Your task to perform on an android device: move an email to a new category in the gmail app Image 0: 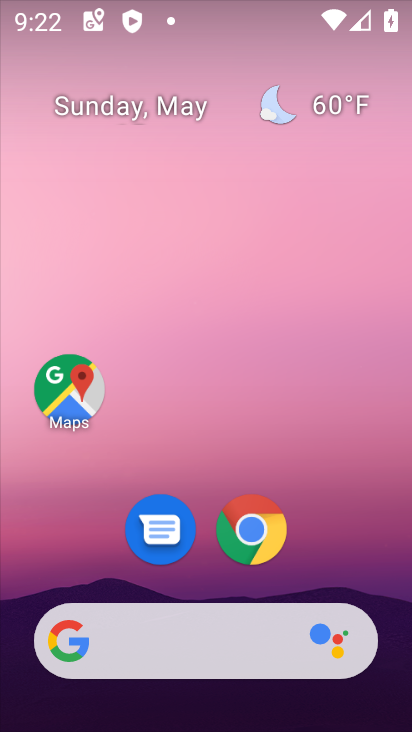
Step 0: drag from (370, 548) to (368, 167)
Your task to perform on an android device: move an email to a new category in the gmail app Image 1: 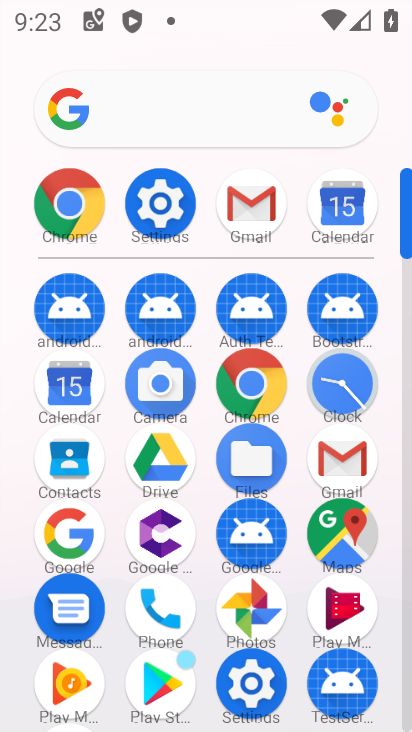
Step 1: click (331, 465)
Your task to perform on an android device: move an email to a new category in the gmail app Image 2: 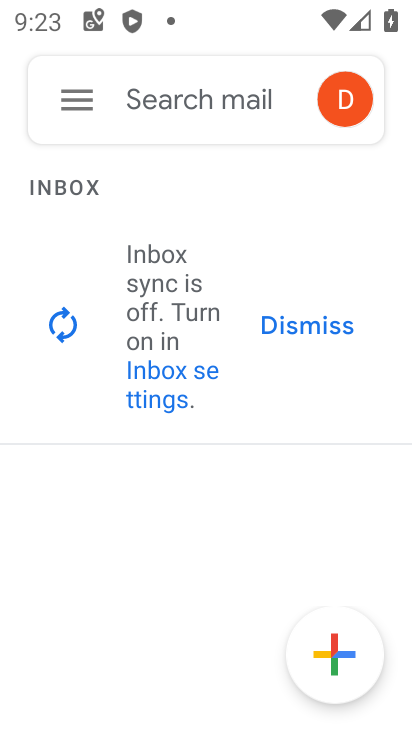
Step 2: click (85, 101)
Your task to perform on an android device: move an email to a new category in the gmail app Image 3: 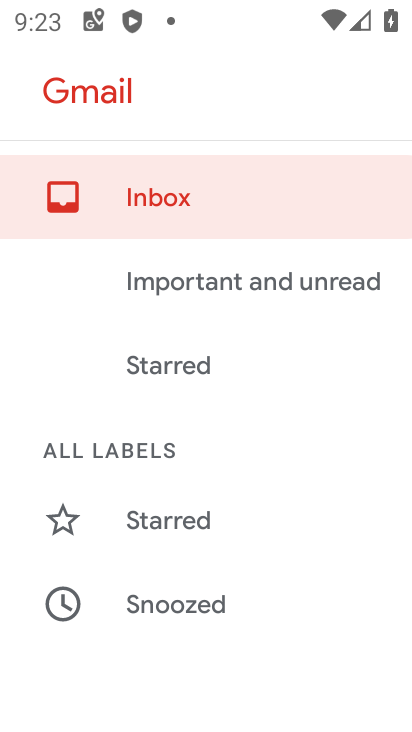
Step 3: drag from (306, 642) to (299, 404)
Your task to perform on an android device: move an email to a new category in the gmail app Image 4: 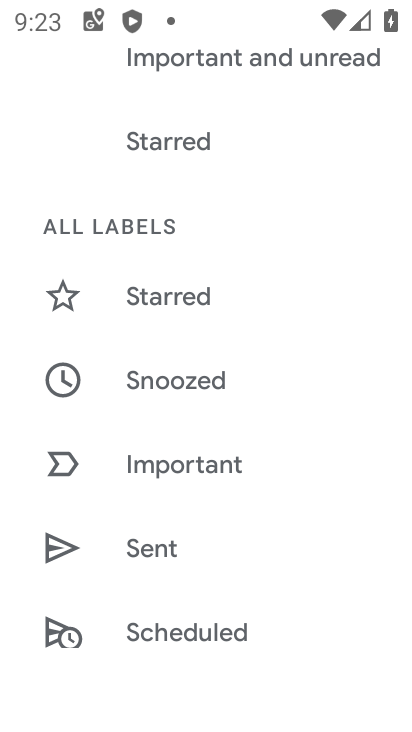
Step 4: drag from (317, 655) to (328, 428)
Your task to perform on an android device: move an email to a new category in the gmail app Image 5: 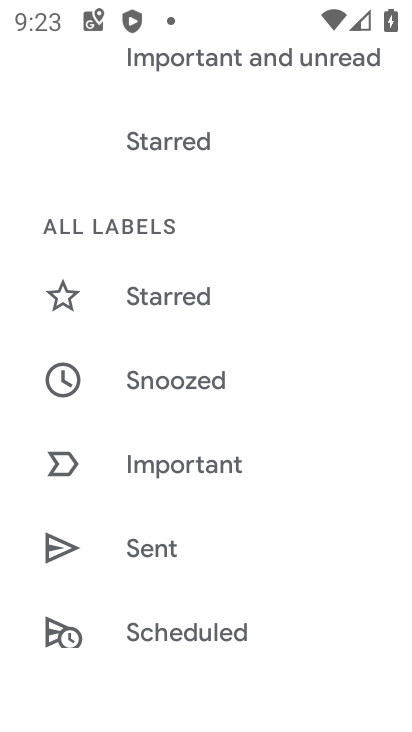
Step 5: drag from (327, 649) to (330, 471)
Your task to perform on an android device: move an email to a new category in the gmail app Image 6: 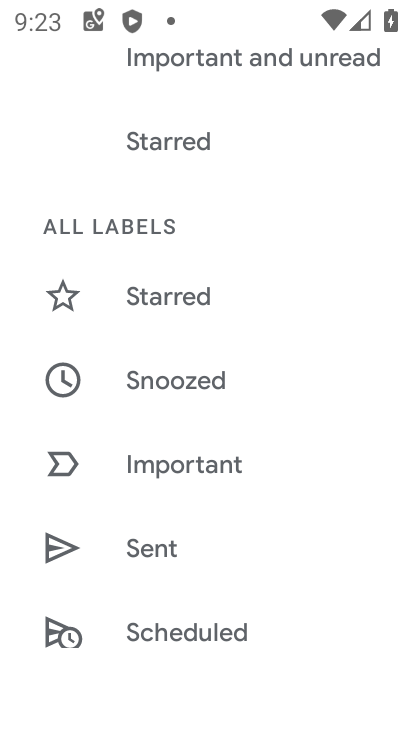
Step 6: drag from (338, 257) to (337, 588)
Your task to perform on an android device: move an email to a new category in the gmail app Image 7: 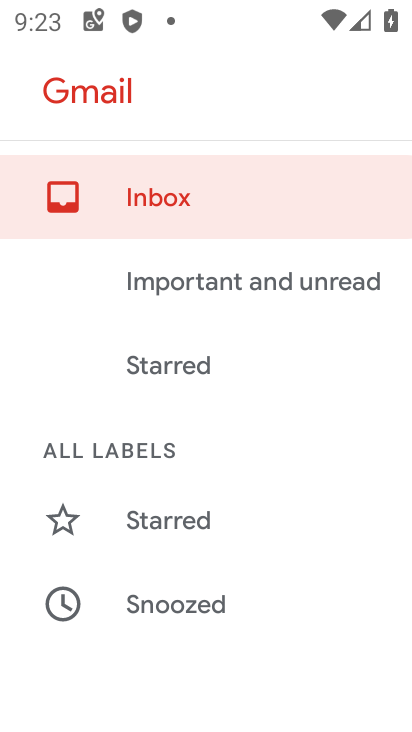
Step 7: click (181, 199)
Your task to perform on an android device: move an email to a new category in the gmail app Image 8: 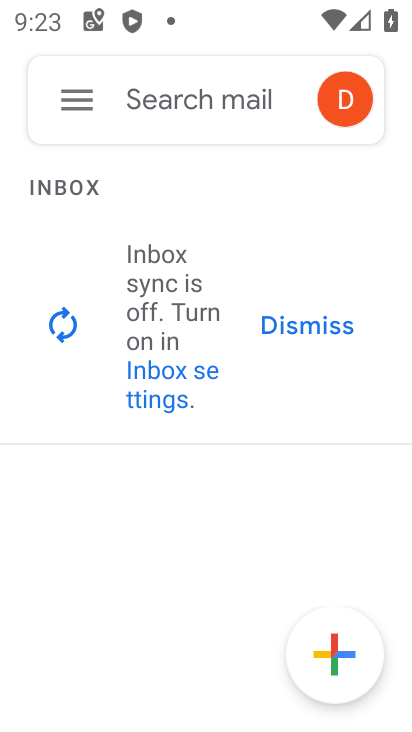
Step 8: task complete